Your task to perform on an android device: toggle location history Image 0: 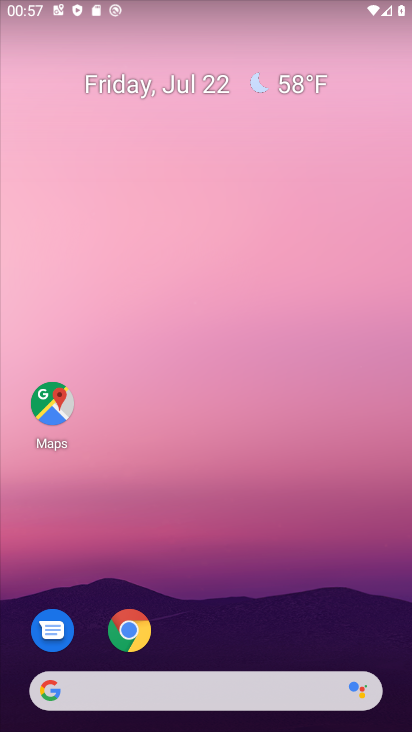
Step 0: drag from (299, 625) to (312, 97)
Your task to perform on an android device: toggle location history Image 1: 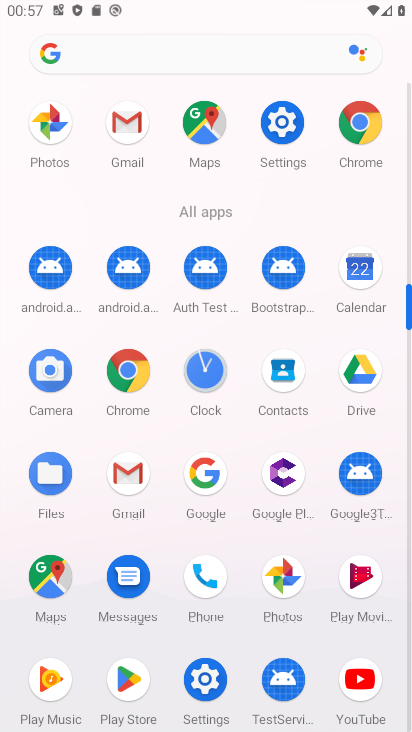
Step 1: click (209, 679)
Your task to perform on an android device: toggle location history Image 2: 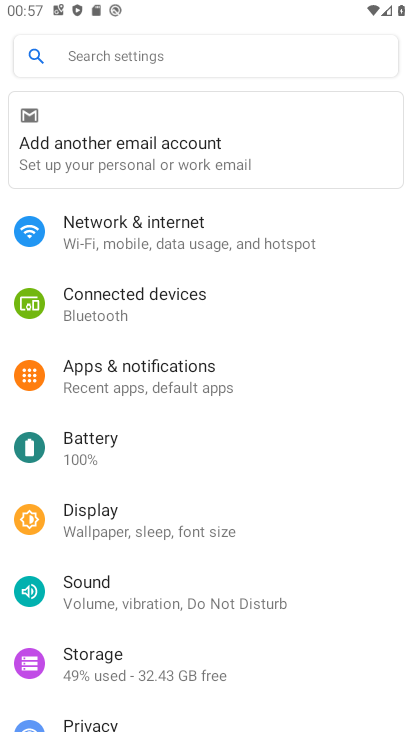
Step 2: press home button
Your task to perform on an android device: toggle location history Image 3: 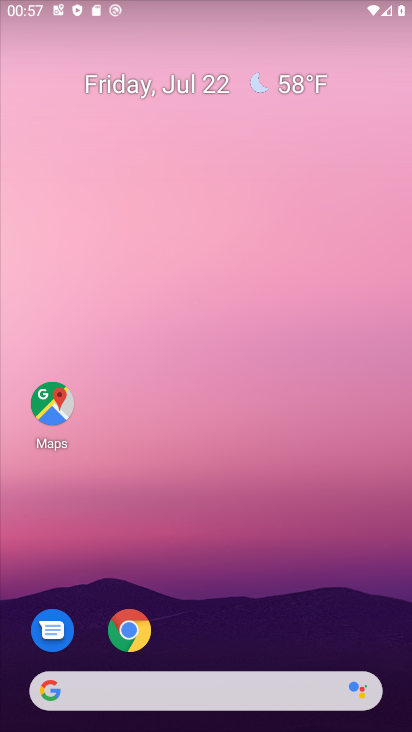
Step 3: drag from (229, 583) to (221, 130)
Your task to perform on an android device: toggle location history Image 4: 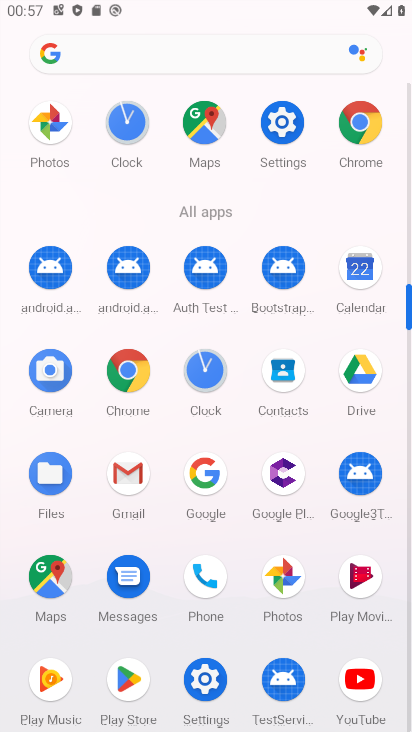
Step 4: click (206, 112)
Your task to perform on an android device: toggle location history Image 5: 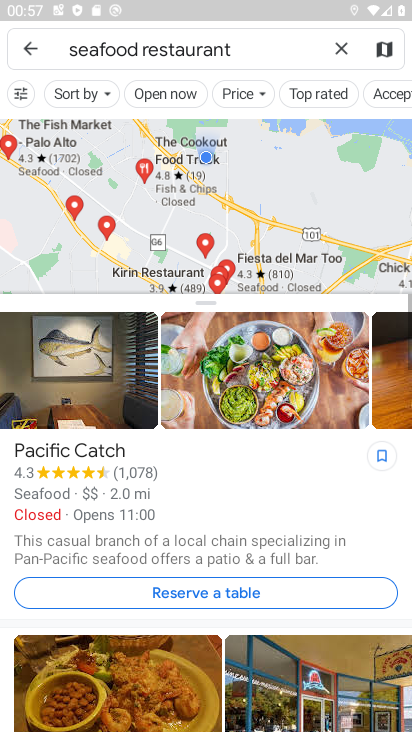
Step 5: click (27, 46)
Your task to perform on an android device: toggle location history Image 6: 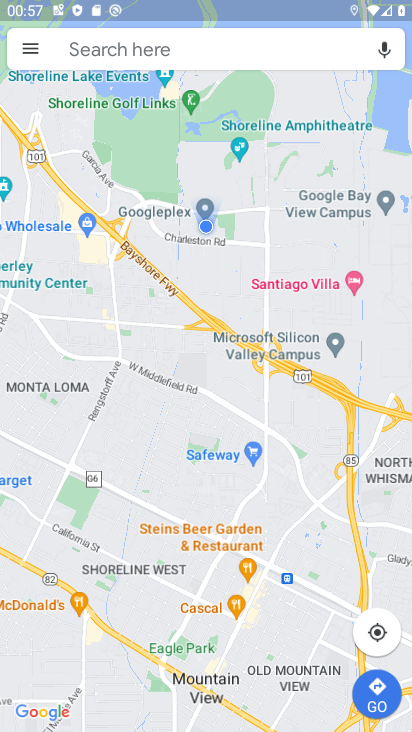
Step 6: click (31, 45)
Your task to perform on an android device: toggle location history Image 7: 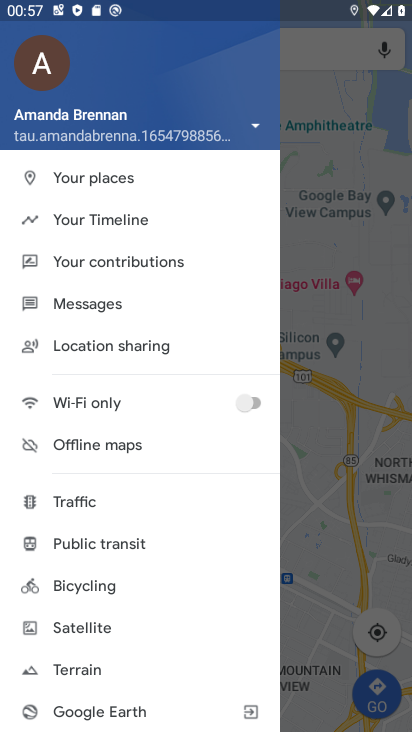
Step 7: click (134, 220)
Your task to perform on an android device: toggle location history Image 8: 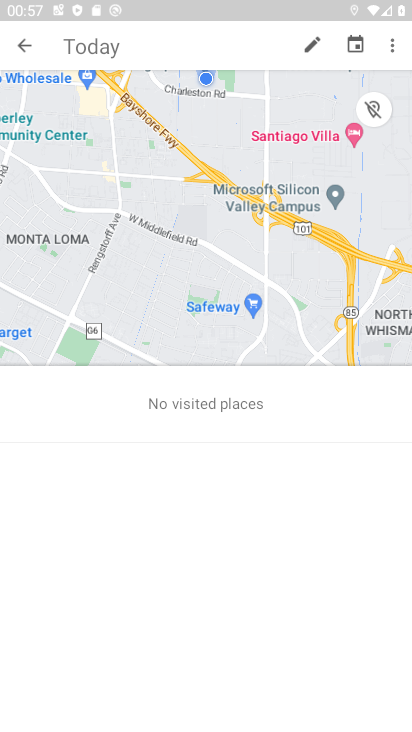
Step 8: click (388, 47)
Your task to perform on an android device: toggle location history Image 9: 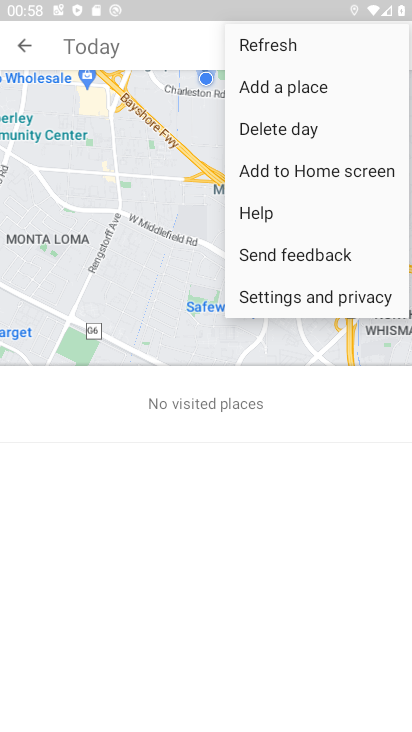
Step 9: click (310, 300)
Your task to perform on an android device: toggle location history Image 10: 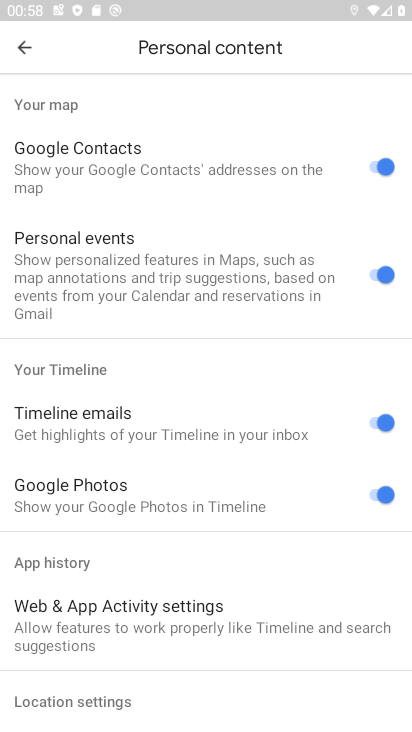
Step 10: drag from (211, 557) to (254, 184)
Your task to perform on an android device: toggle location history Image 11: 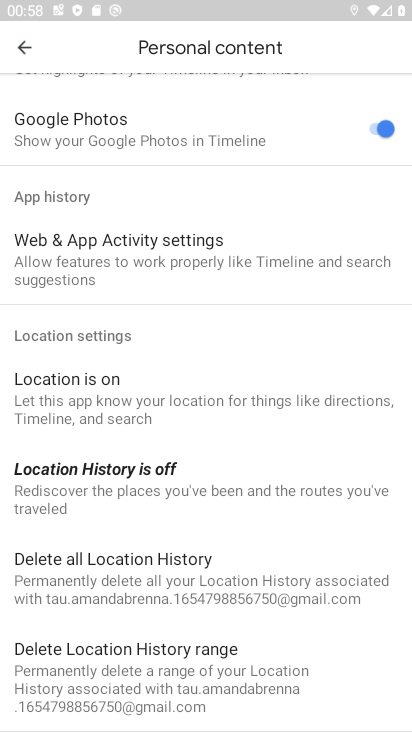
Step 11: click (124, 472)
Your task to perform on an android device: toggle location history Image 12: 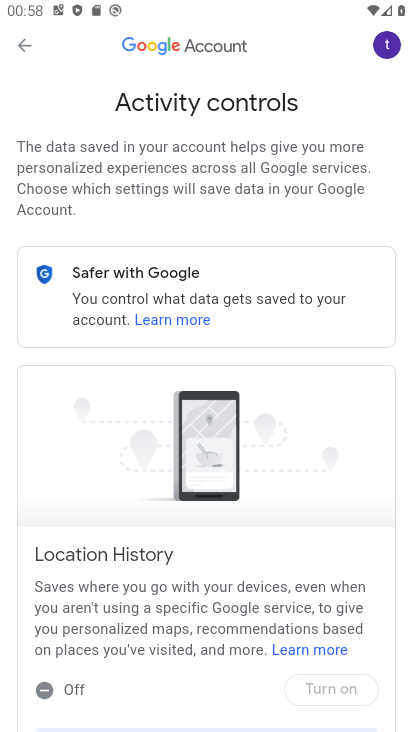
Step 12: drag from (249, 603) to (309, 166)
Your task to perform on an android device: toggle location history Image 13: 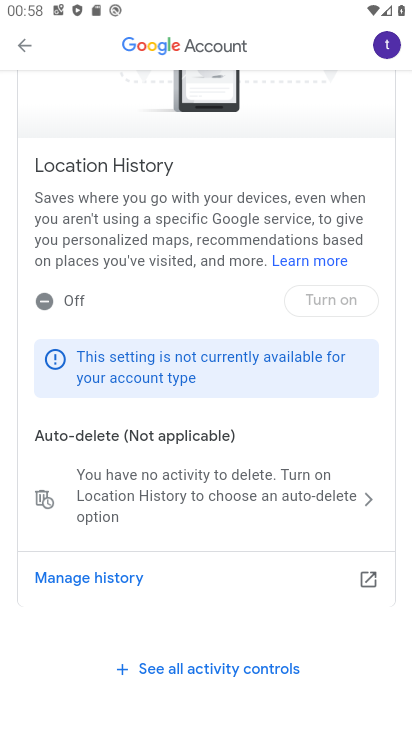
Step 13: click (345, 303)
Your task to perform on an android device: toggle location history Image 14: 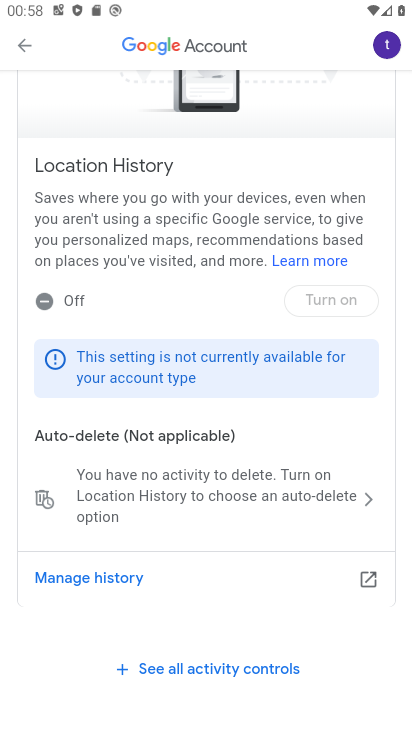
Step 14: click (345, 303)
Your task to perform on an android device: toggle location history Image 15: 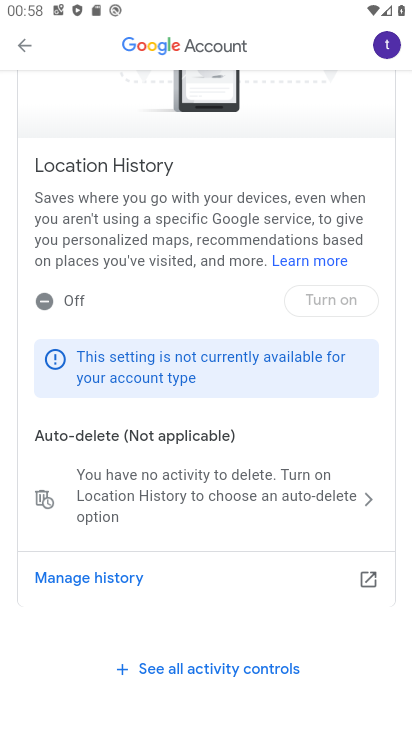
Step 15: task complete